Your task to perform on an android device: Open Google Maps Image 0: 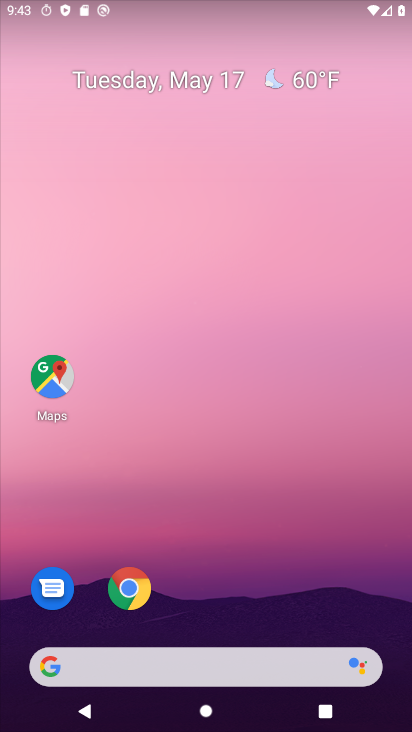
Step 0: drag from (388, 652) to (51, 2)
Your task to perform on an android device: Open Google Maps Image 1: 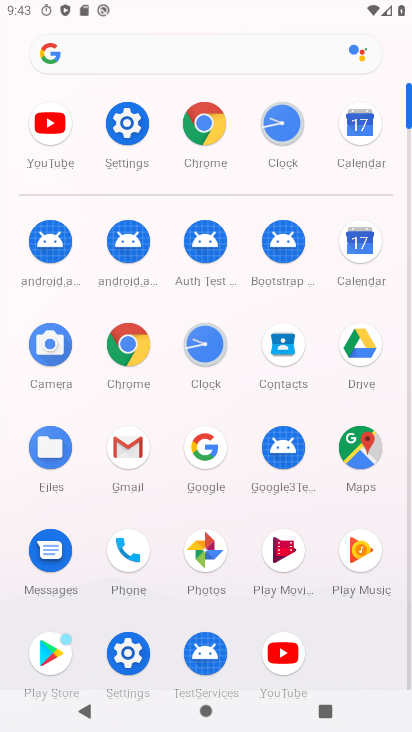
Step 1: click (359, 455)
Your task to perform on an android device: Open Google Maps Image 2: 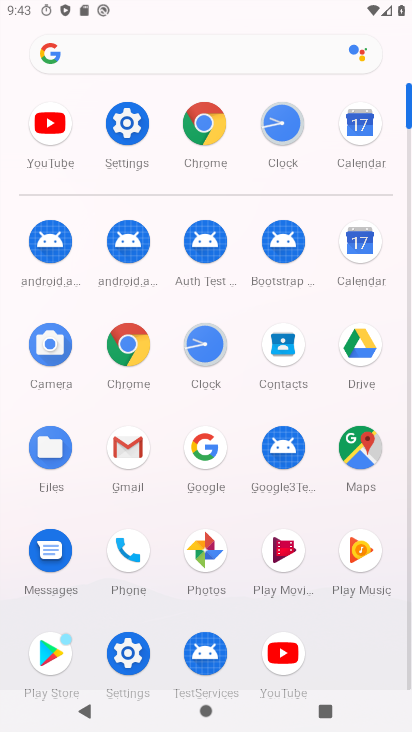
Step 2: click (365, 453)
Your task to perform on an android device: Open Google Maps Image 3: 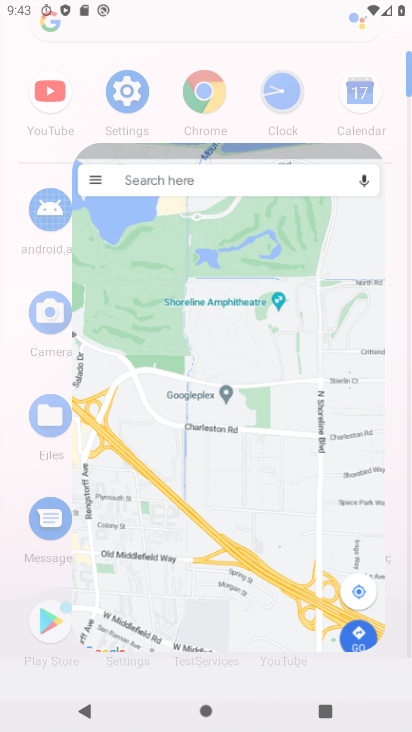
Step 3: click (367, 454)
Your task to perform on an android device: Open Google Maps Image 4: 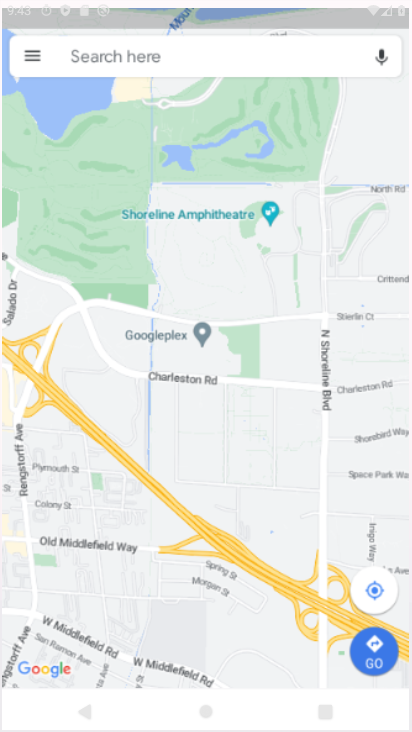
Step 4: click (368, 454)
Your task to perform on an android device: Open Google Maps Image 5: 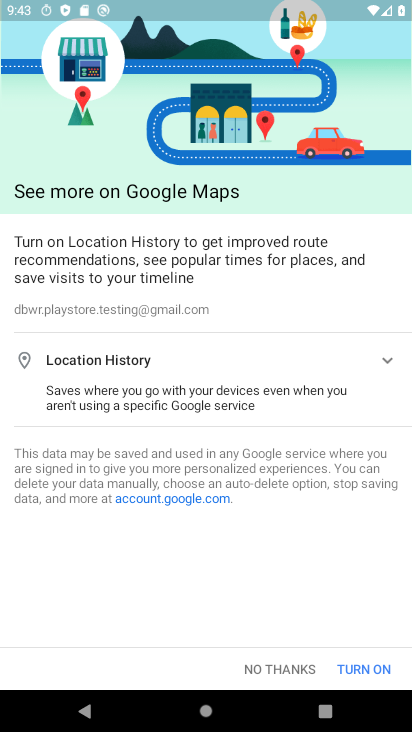
Step 5: click (270, 673)
Your task to perform on an android device: Open Google Maps Image 6: 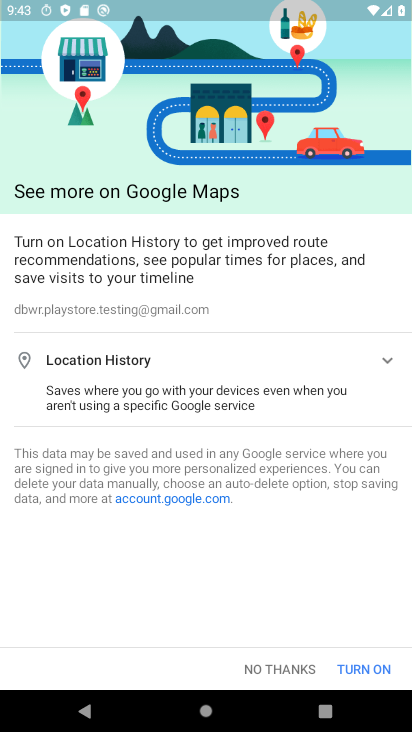
Step 6: click (274, 669)
Your task to perform on an android device: Open Google Maps Image 7: 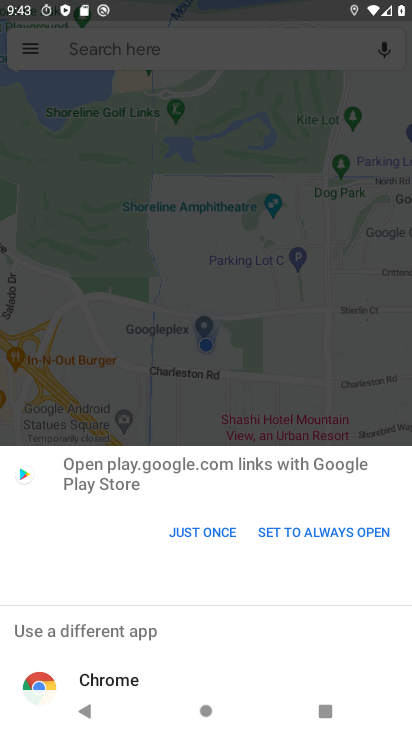
Step 7: drag from (223, 161) to (203, 108)
Your task to perform on an android device: Open Google Maps Image 8: 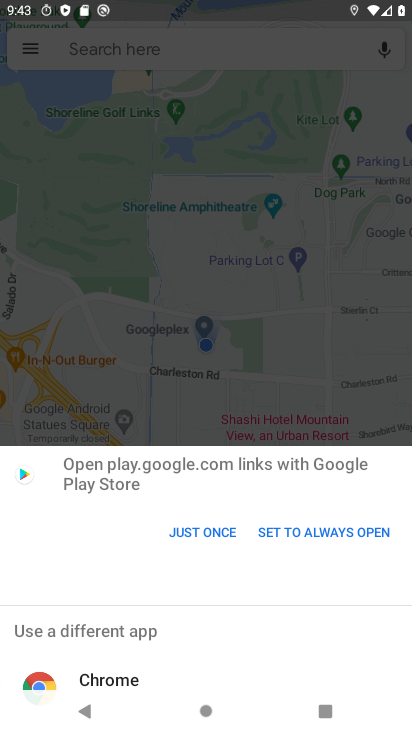
Step 8: click (201, 101)
Your task to perform on an android device: Open Google Maps Image 9: 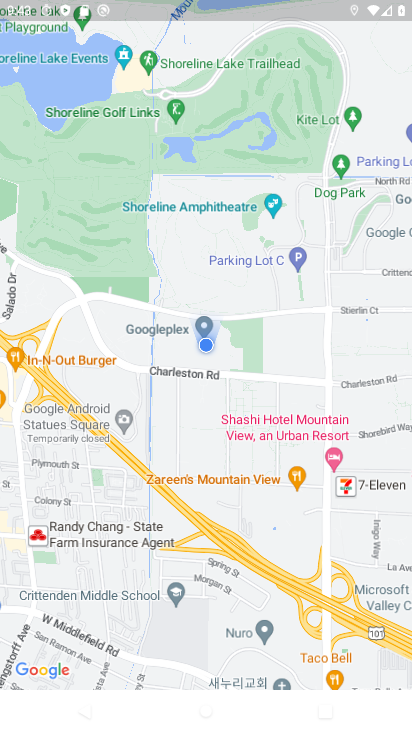
Step 9: task complete